Your task to perform on an android device: Go to Google Image 0: 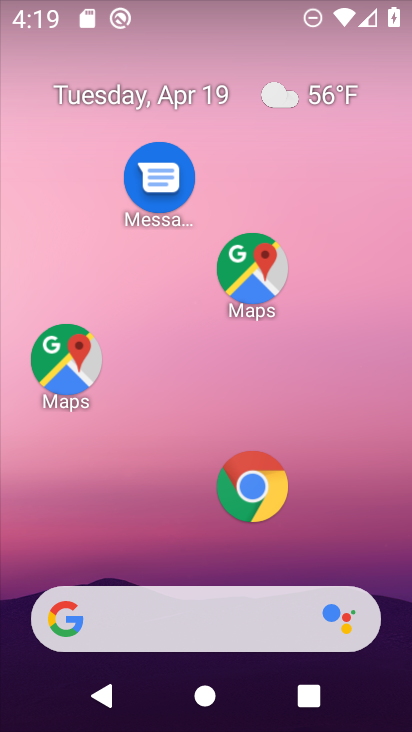
Step 0: drag from (298, 535) to (315, 83)
Your task to perform on an android device: Go to Google Image 1: 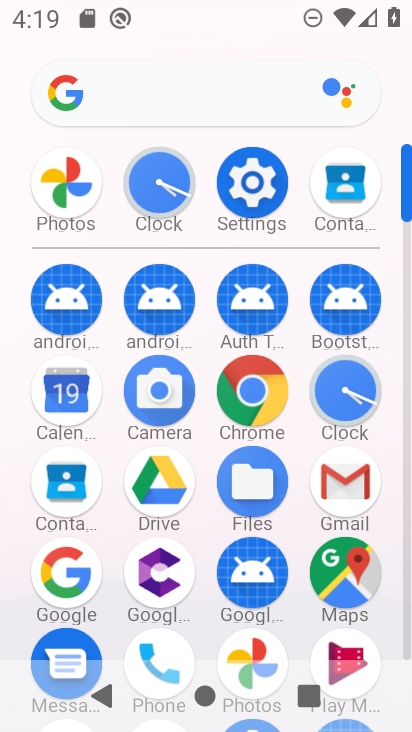
Step 1: click (87, 581)
Your task to perform on an android device: Go to Google Image 2: 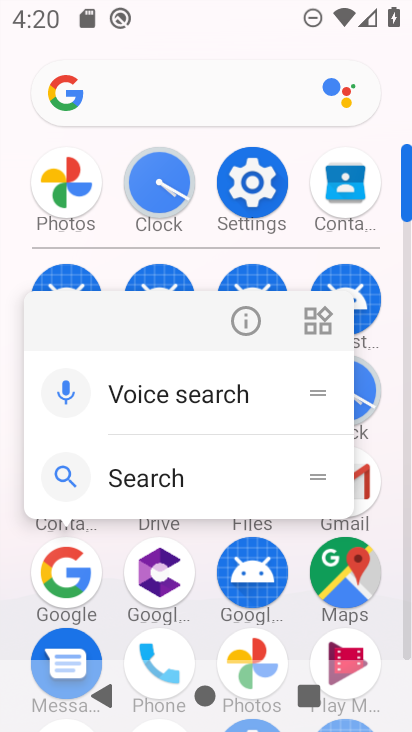
Step 2: click (63, 584)
Your task to perform on an android device: Go to Google Image 3: 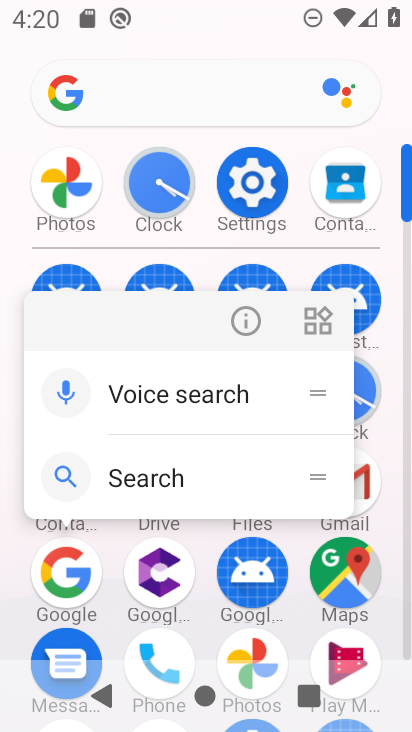
Step 3: click (248, 329)
Your task to perform on an android device: Go to Google Image 4: 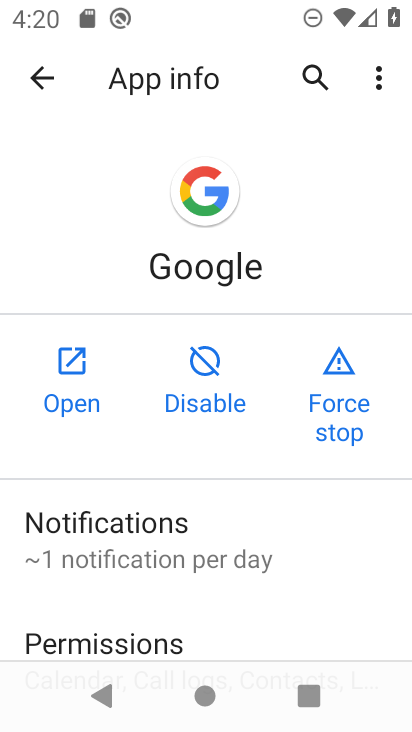
Step 4: click (71, 390)
Your task to perform on an android device: Go to Google Image 5: 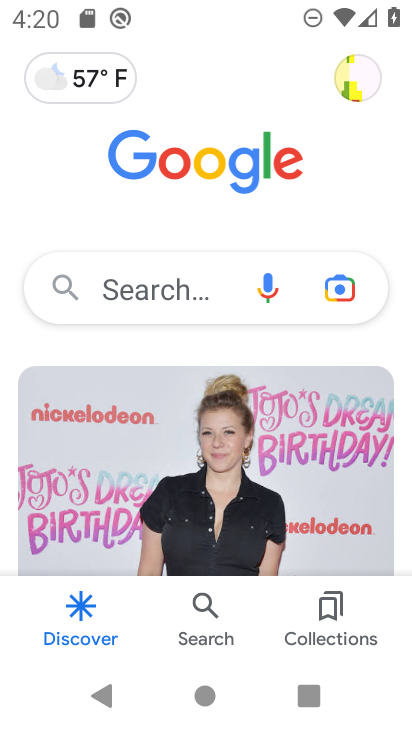
Step 5: task complete